Your task to perform on an android device: install app "TextNow: Call + Text Unlimited" Image 0: 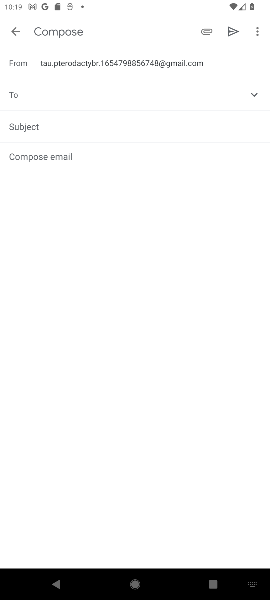
Step 0: press home button
Your task to perform on an android device: install app "TextNow: Call + Text Unlimited" Image 1: 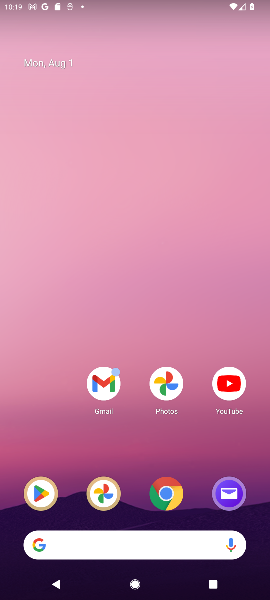
Step 1: task complete